Your task to perform on an android device: Go to Android settings Image 0: 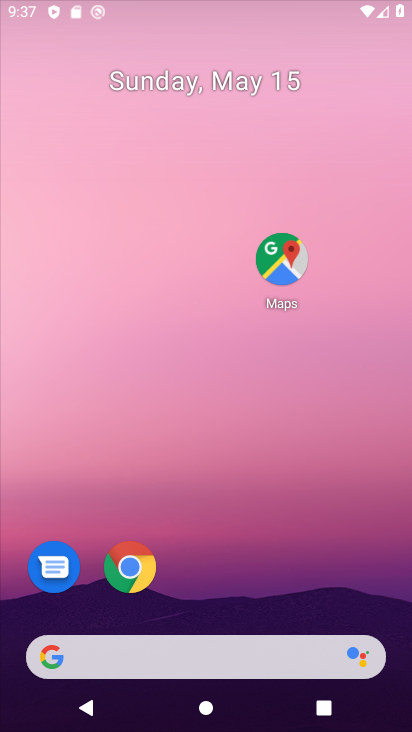
Step 0: drag from (222, 561) to (198, 131)
Your task to perform on an android device: Go to Android settings Image 1: 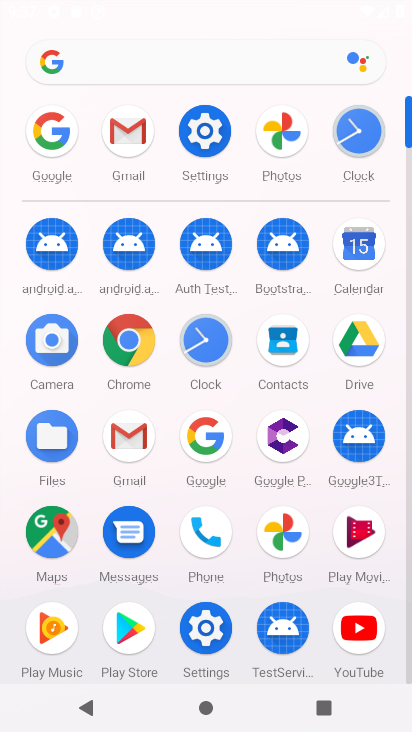
Step 1: click (207, 125)
Your task to perform on an android device: Go to Android settings Image 2: 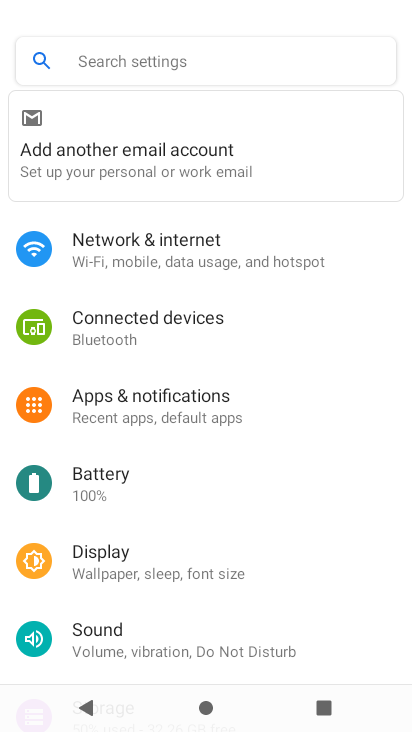
Step 2: task complete